Your task to perform on an android device: Empty the shopping cart on newegg. Image 0: 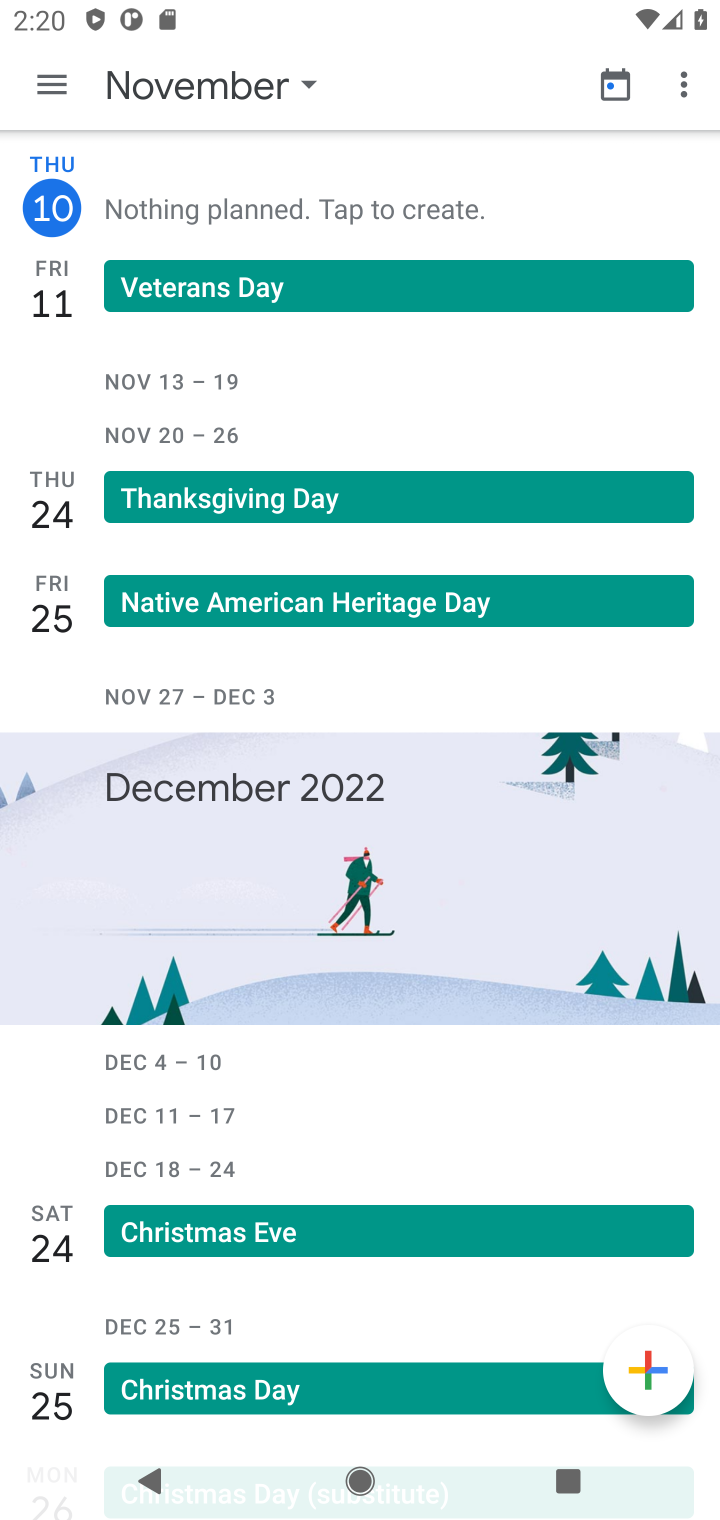
Step 0: press home button
Your task to perform on an android device: Empty the shopping cart on newegg. Image 1: 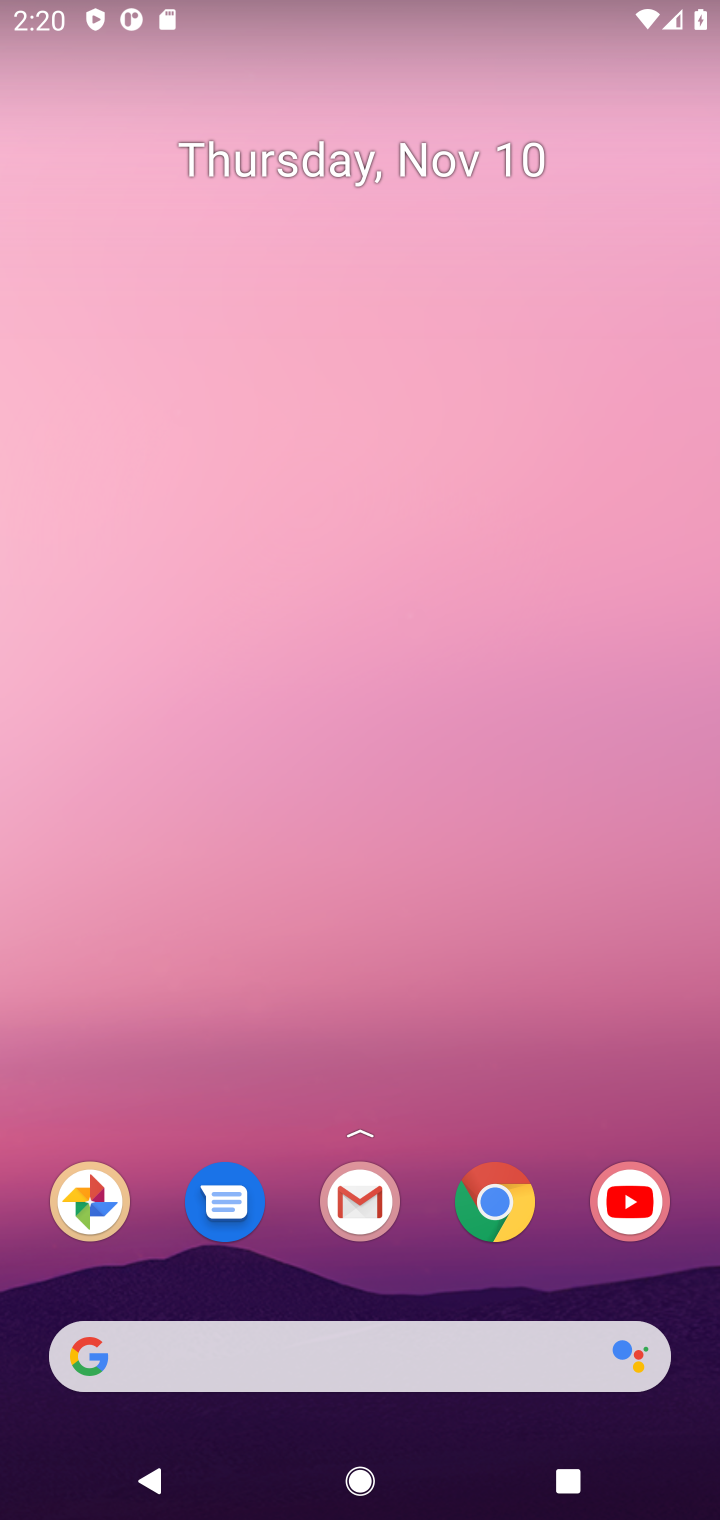
Step 1: click (505, 1211)
Your task to perform on an android device: Empty the shopping cart on newegg. Image 2: 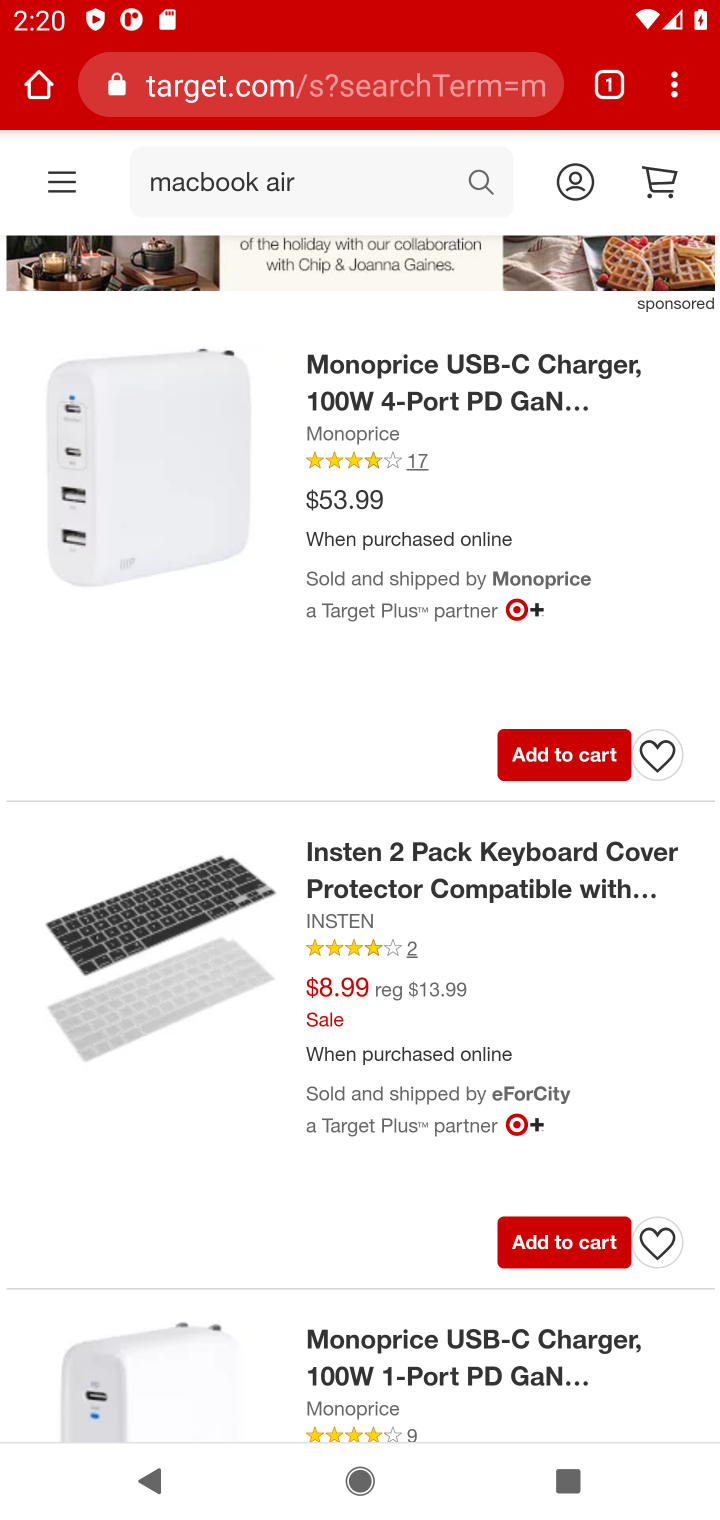
Step 2: click (356, 92)
Your task to perform on an android device: Empty the shopping cart on newegg. Image 3: 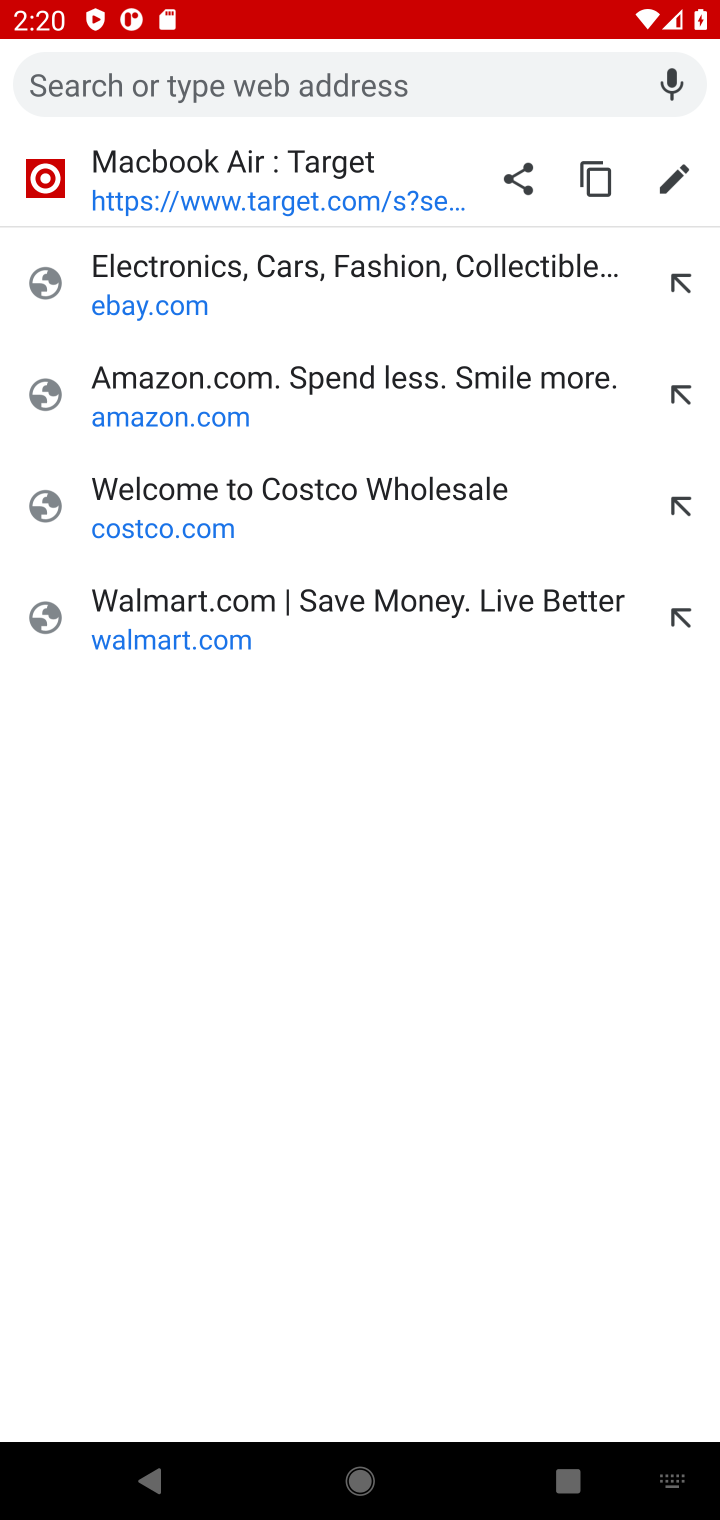
Step 3: type "newegg"
Your task to perform on an android device: Empty the shopping cart on newegg. Image 4: 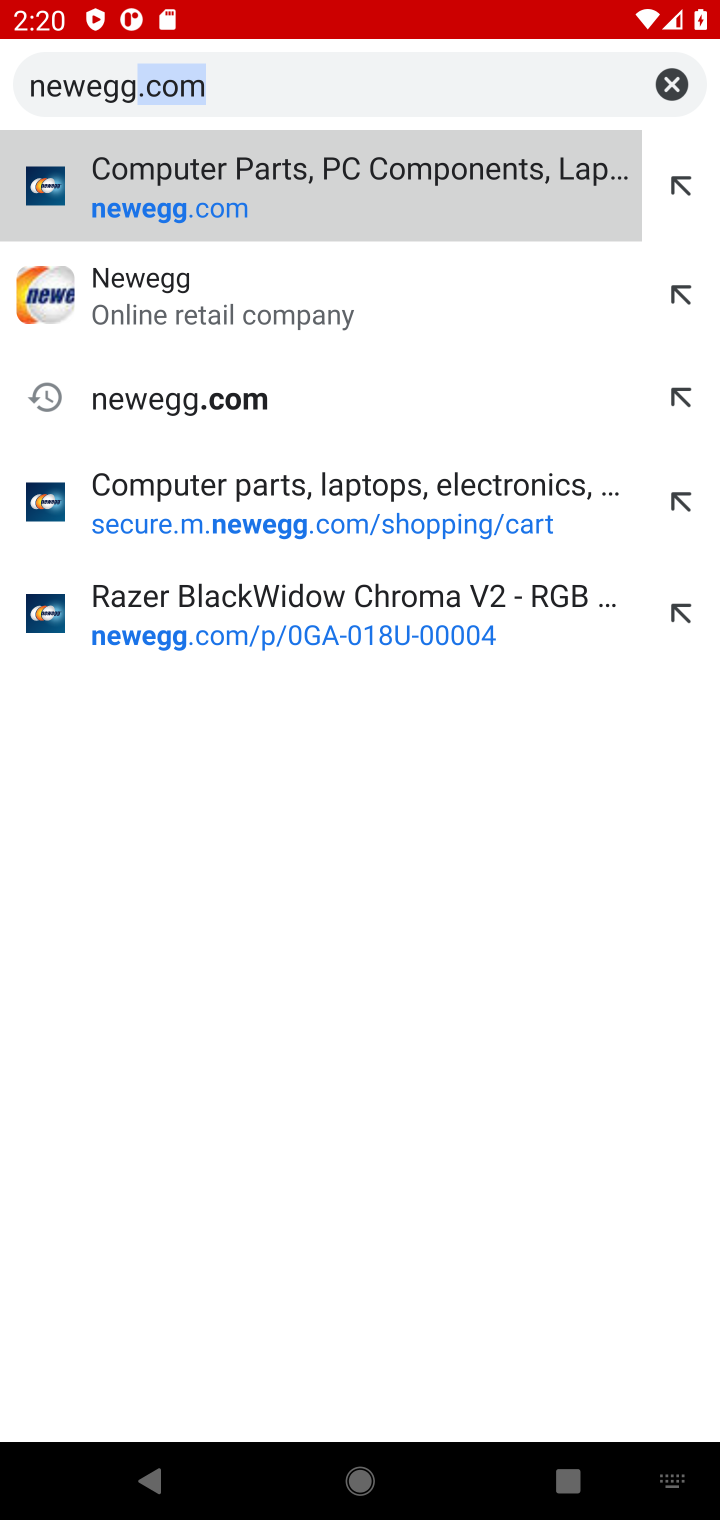
Step 4: press enter
Your task to perform on an android device: Empty the shopping cart on newegg. Image 5: 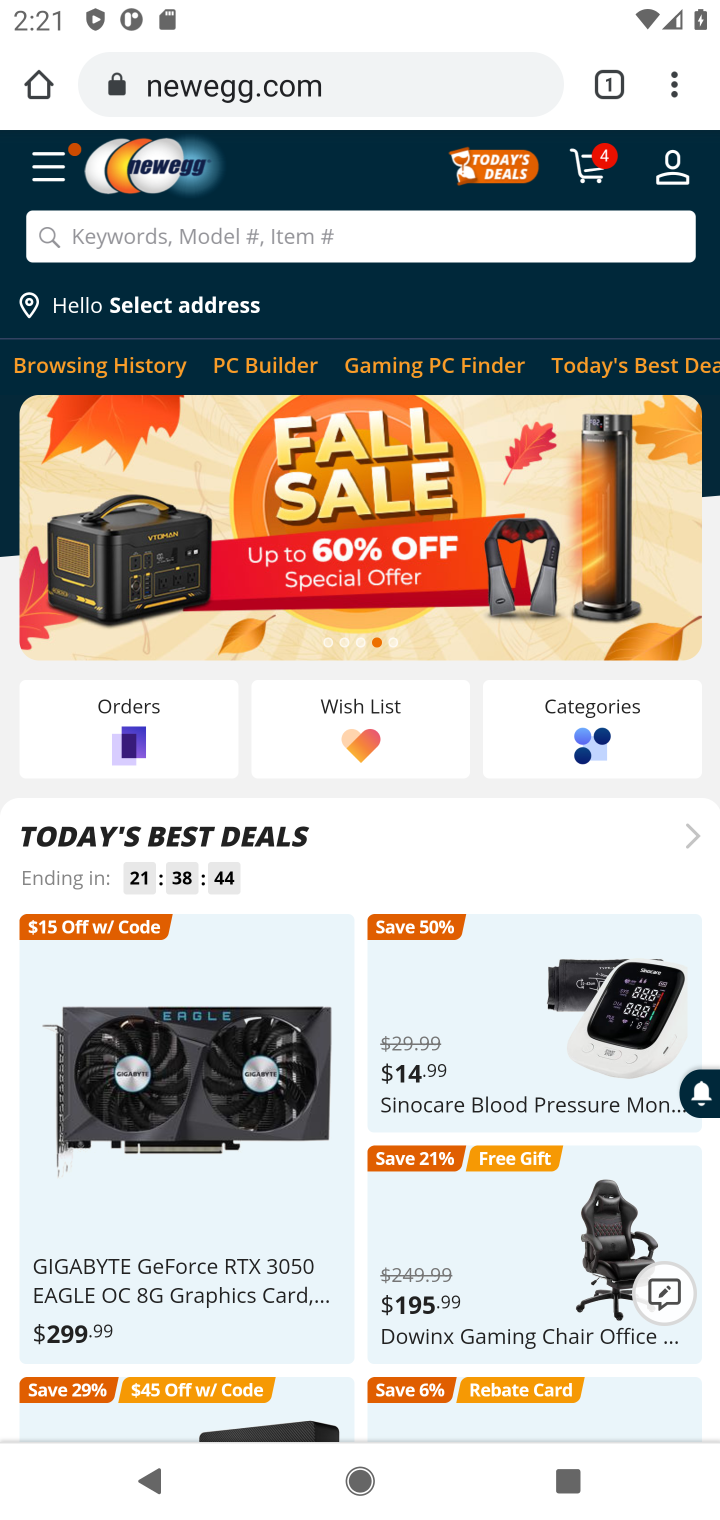
Step 5: click (245, 243)
Your task to perform on an android device: Empty the shopping cart on newegg. Image 6: 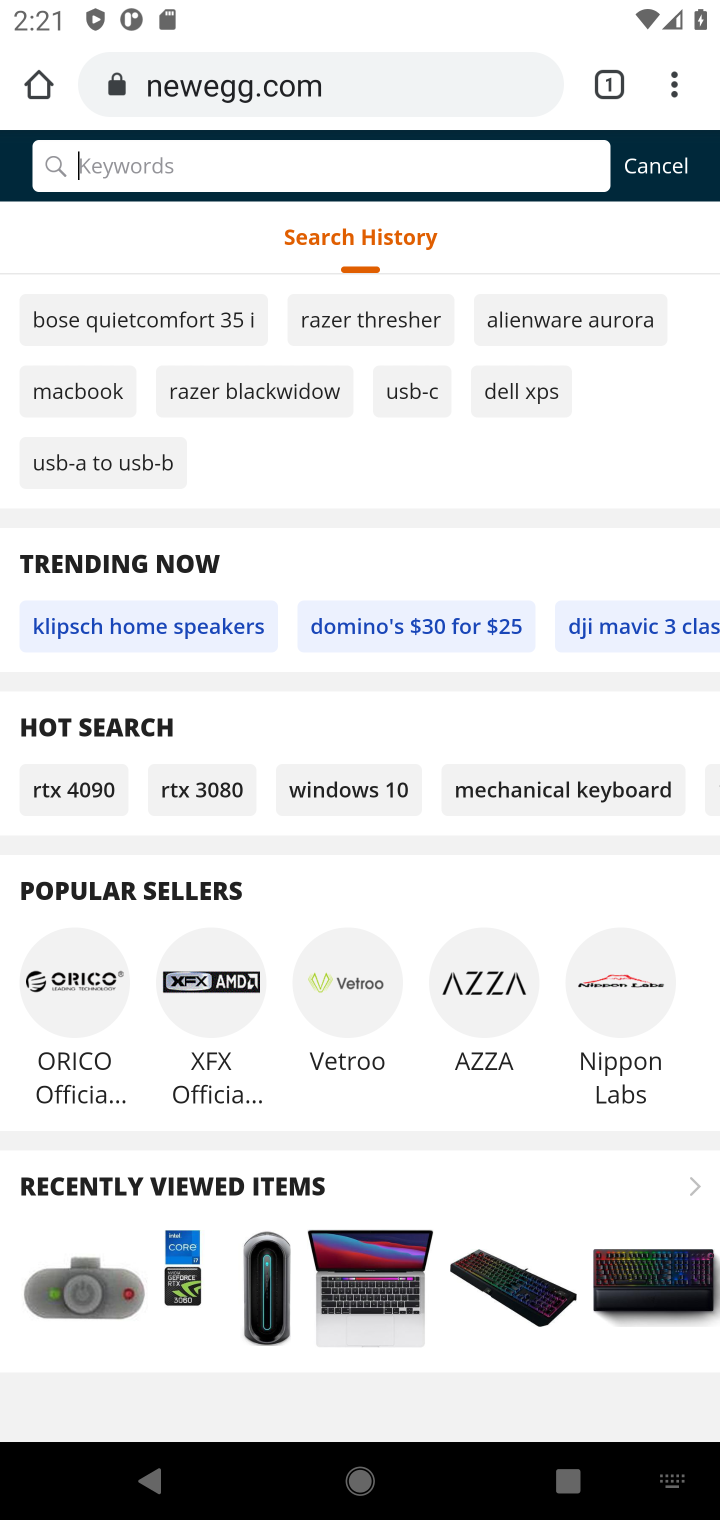
Step 6: click (680, 173)
Your task to perform on an android device: Empty the shopping cart on newegg. Image 7: 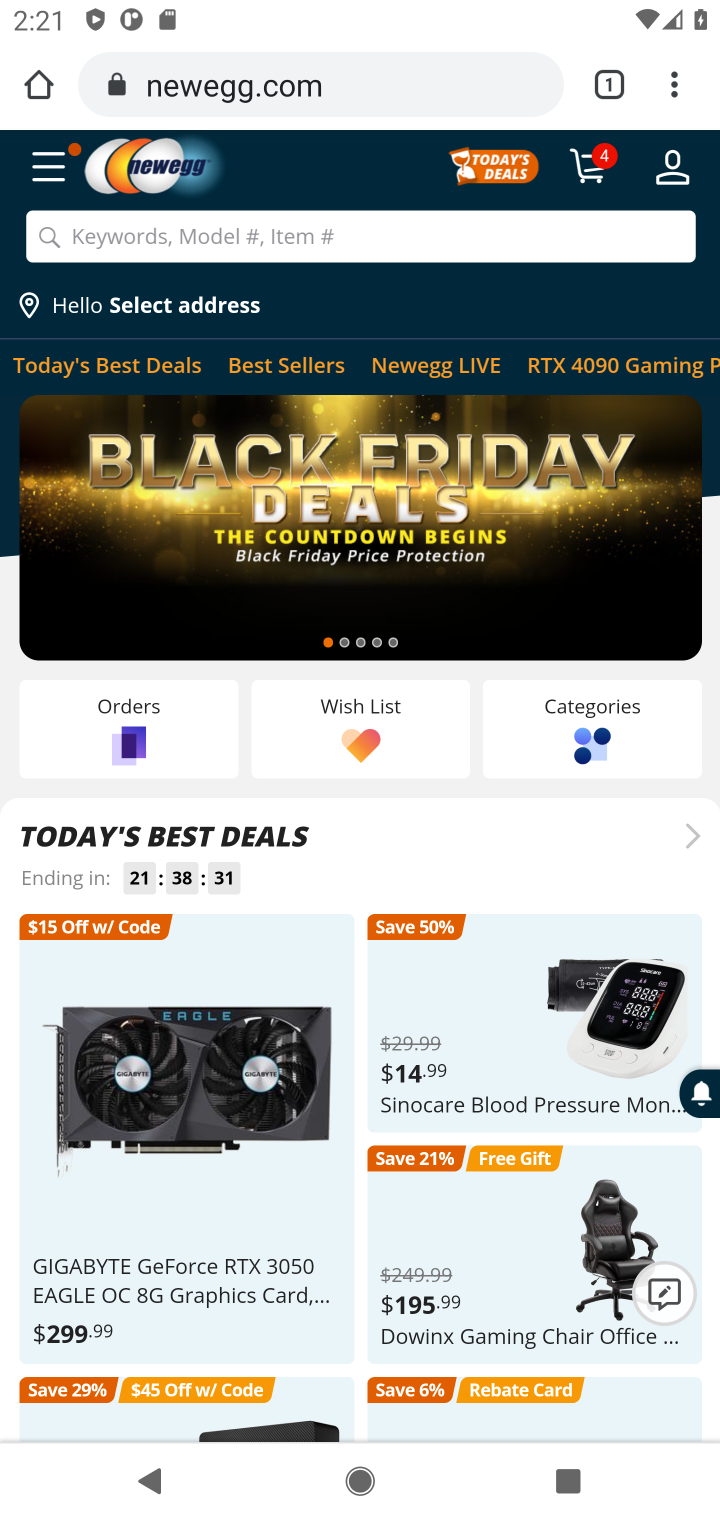
Step 7: click (589, 179)
Your task to perform on an android device: Empty the shopping cart on newegg. Image 8: 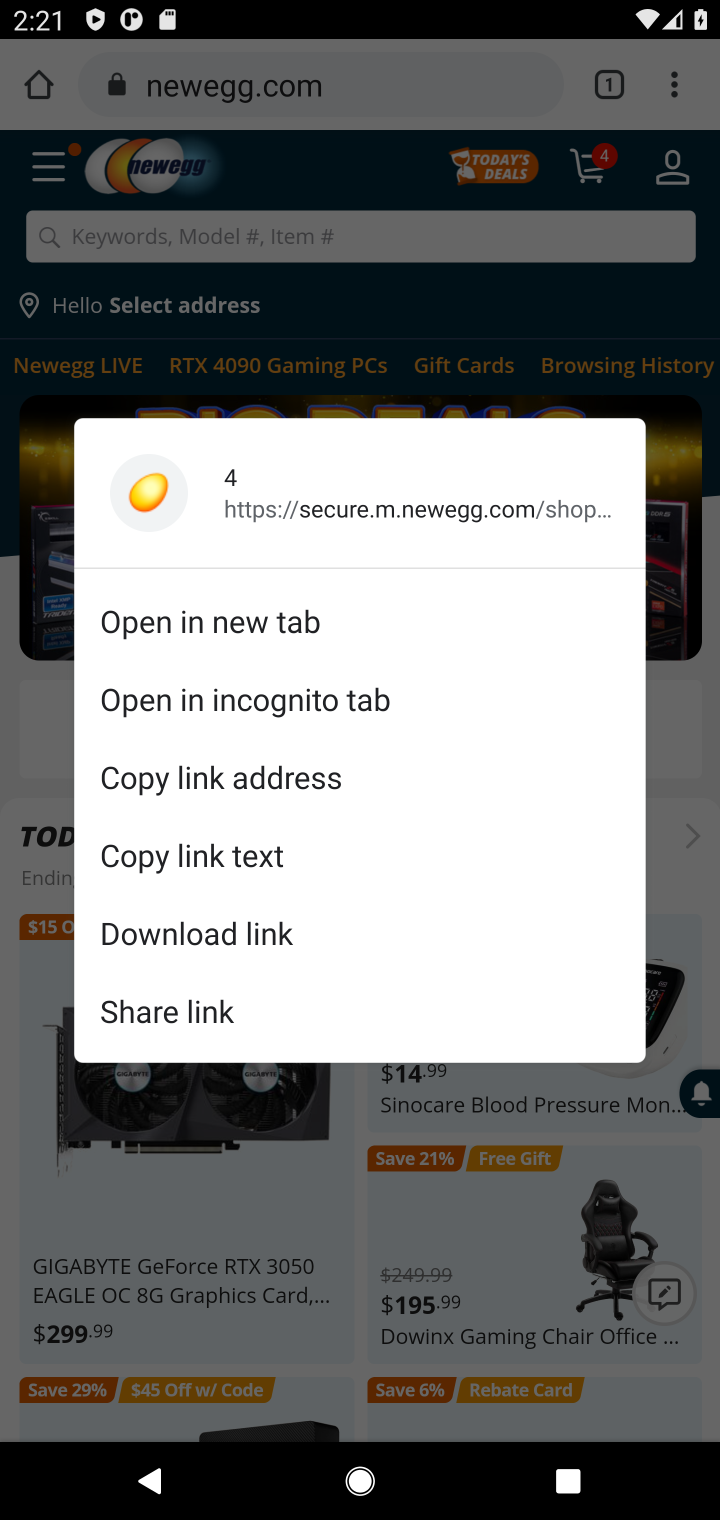
Step 8: click (590, 180)
Your task to perform on an android device: Empty the shopping cart on newegg. Image 9: 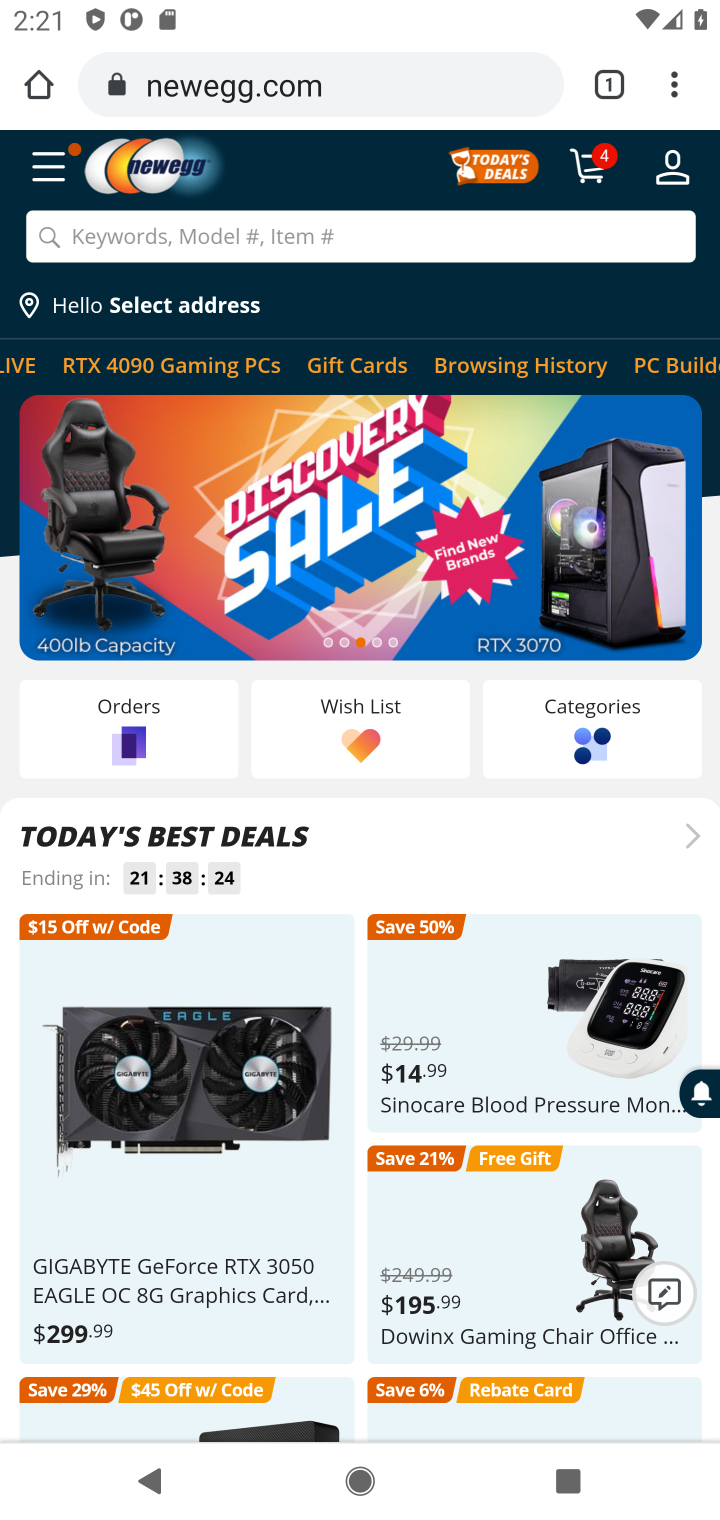
Step 9: click (590, 180)
Your task to perform on an android device: Empty the shopping cart on newegg. Image 10: 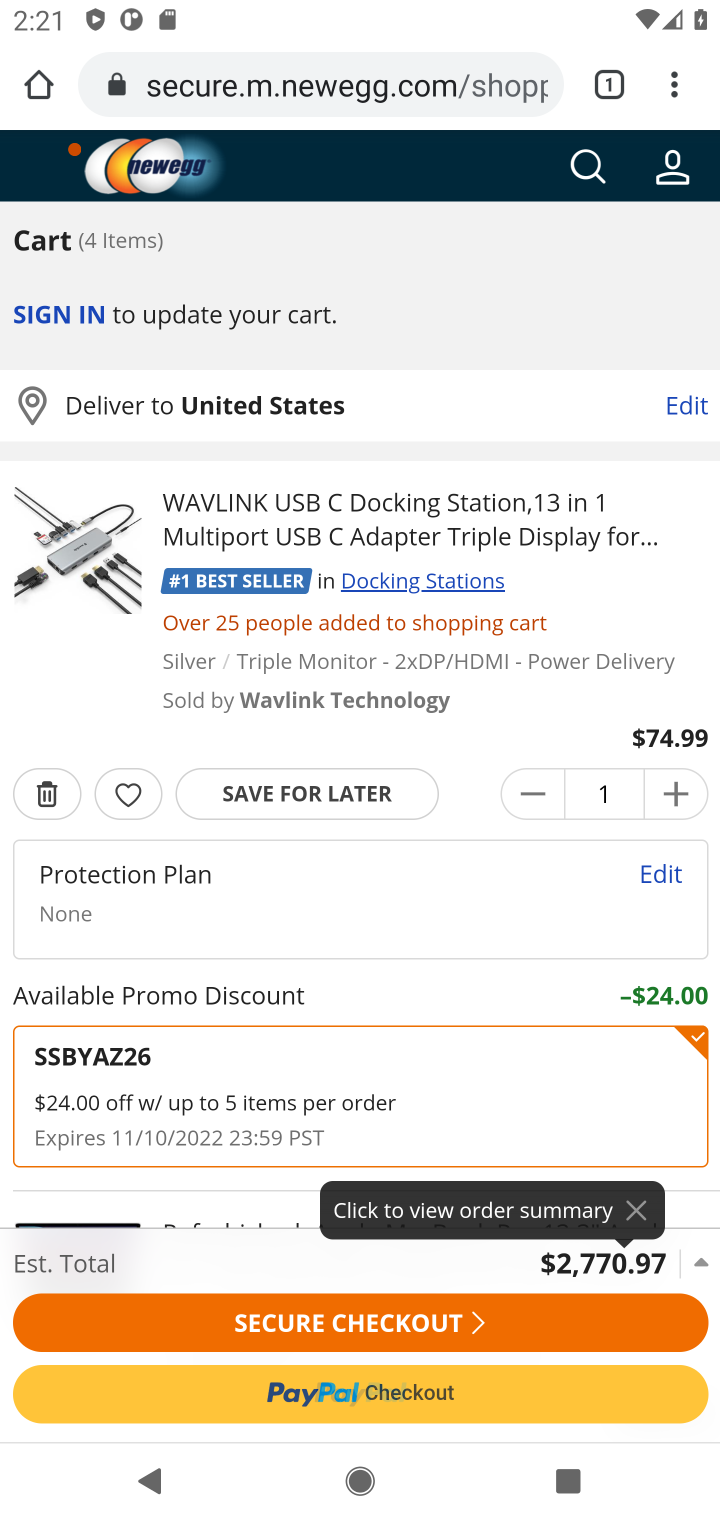
Step 10: click (45, 791)
Your task to perform on an android device: Empty the shopping cart on newegg. Image 11: 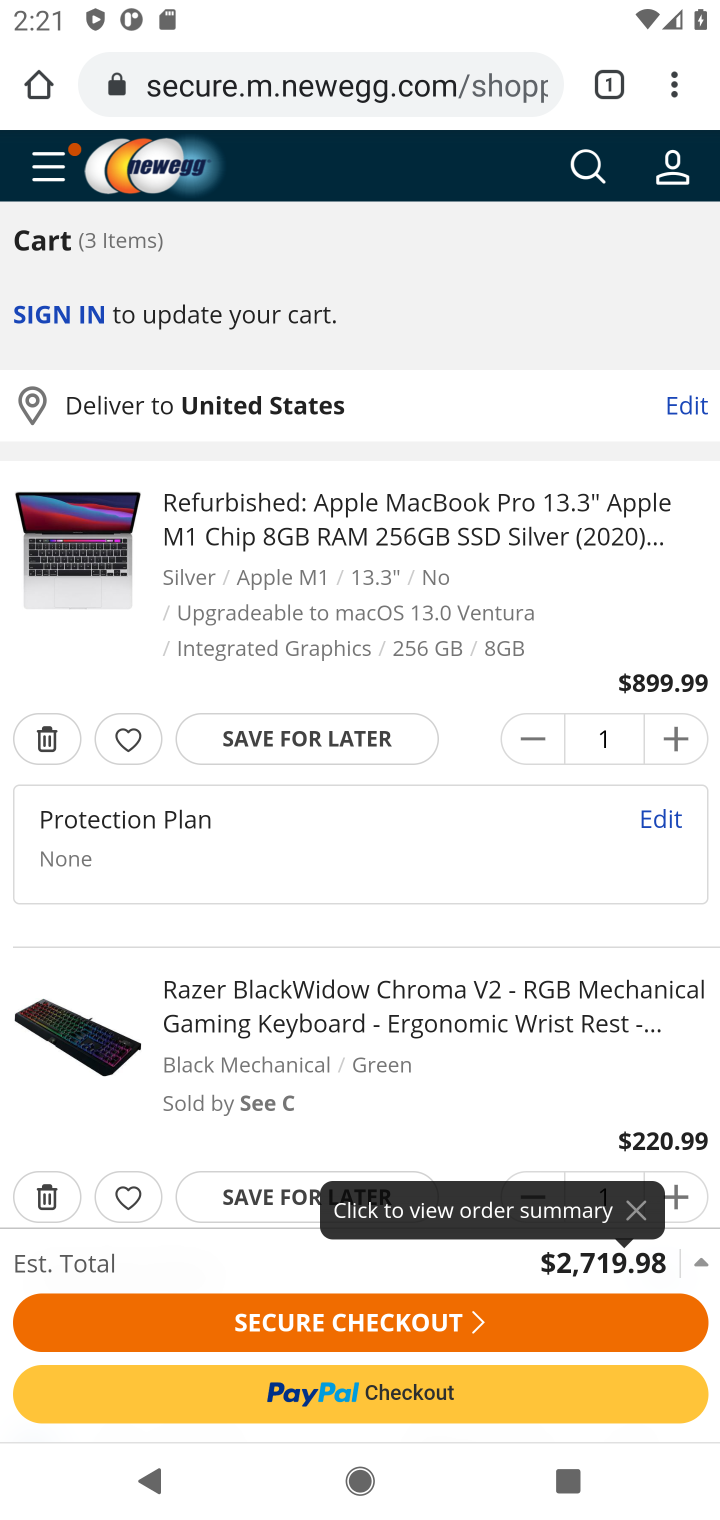
Step 11: click (55, 737)
Your task to perform on an android device: Empty the shopping cart on newegg. Image 12: 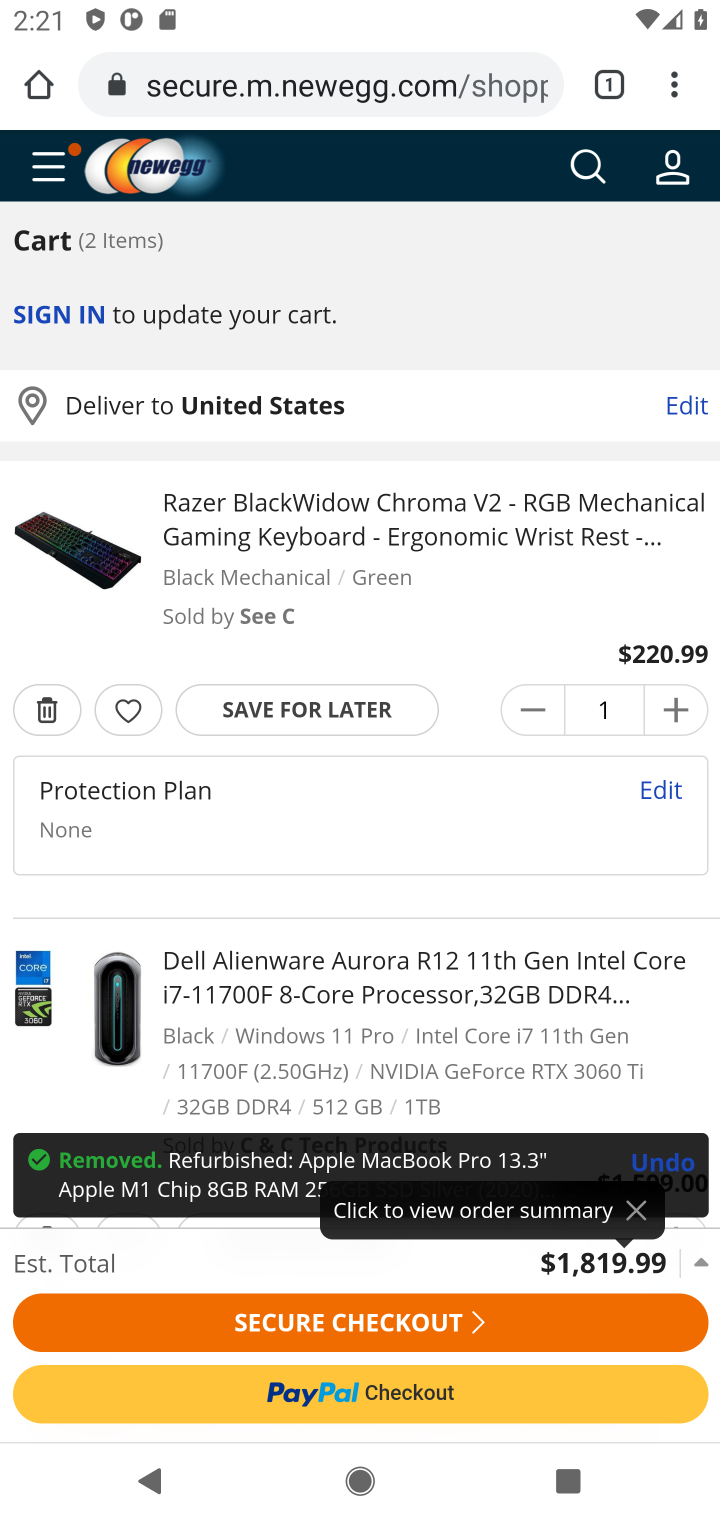
Step 12: click (42, 707)
Your task to perform on an android device: Empty the shopping cart on newegg. Image 13: 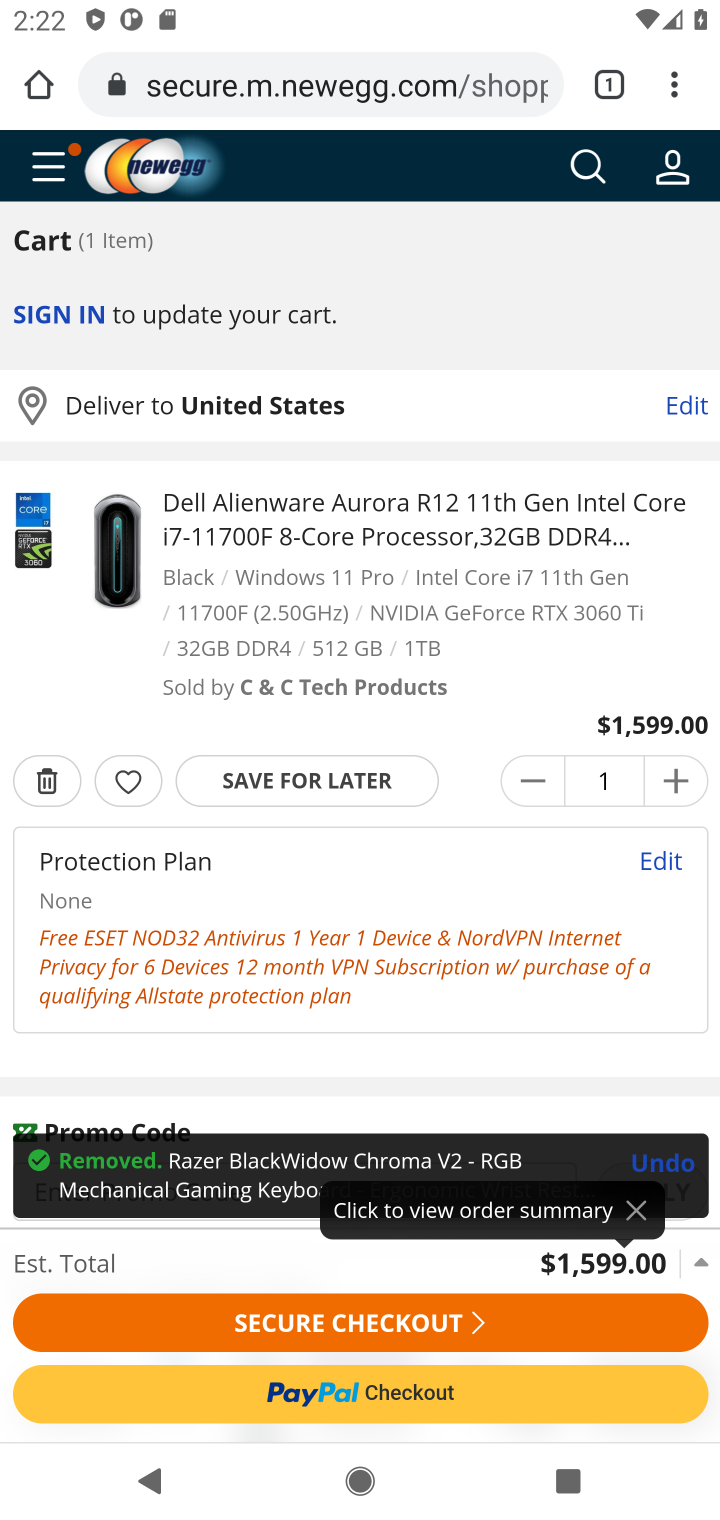
Step 13: click (50, 774)
Your task to perform on an android device: Empty the shopping cart on newegg. Image 14: 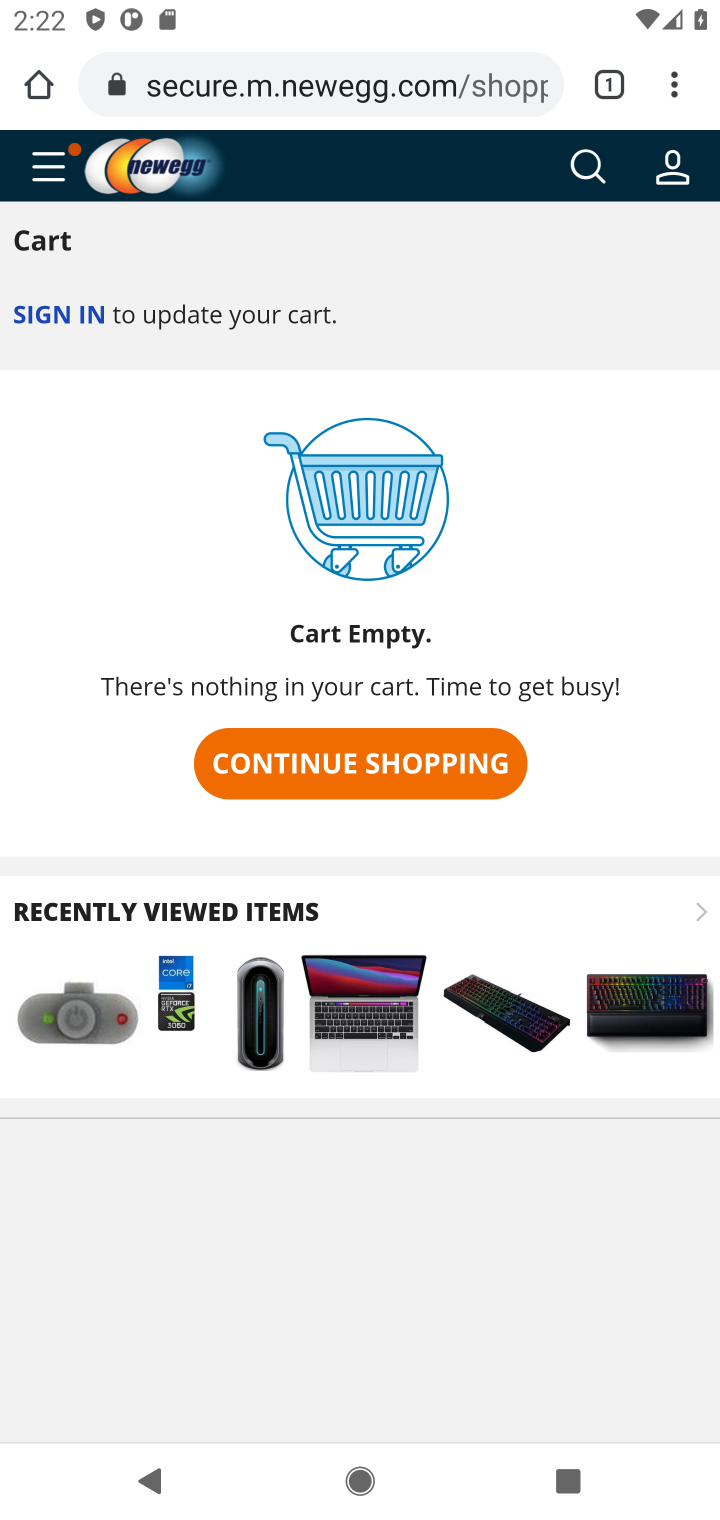
Step 14: task complete